Your task to perform on an android device: manage bookmarks in the chrome app Image 0: 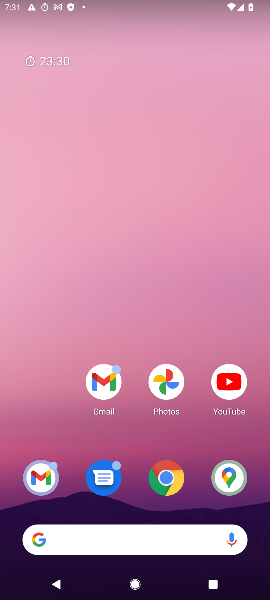
Step 0: click (178, 389)
Your task to perform on an android device: manage bookmarks in the chrome app Image 1: 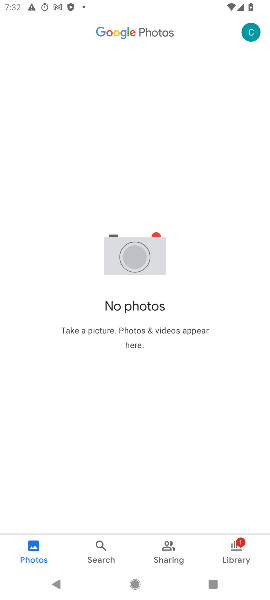
Step 1: drag from (108, 408) to (153, 259)
Your task to perform on an android device: manage bookmarks in the chrome app Image 2: 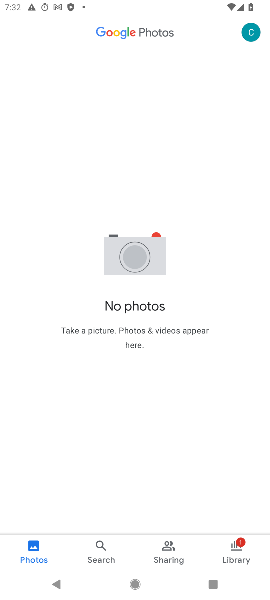
Step 2: press home button
Your task to perform on an android device: manage bookmarks in the chrome app Image 3: 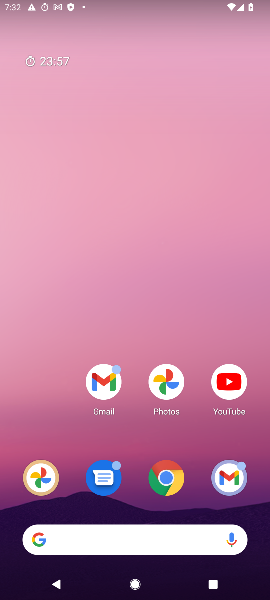
Step 3: click (164, 481)
Your task to perform on an android device: manage bookmarks in the chrome app Image 4: 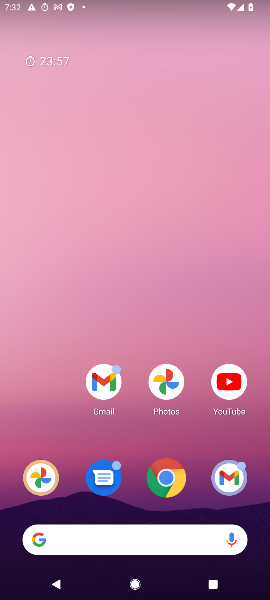
Step 4: click (164, 480)
Your task to perform on an android device: manage bookmarks in the chrome app Image 5: 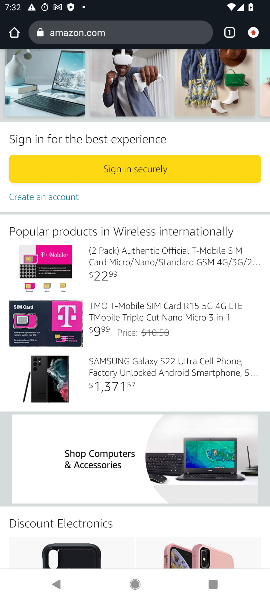
Step 5: click (261, 28)
Your task to perform on an android device: manage bookmarks in the chrome app Image 6: 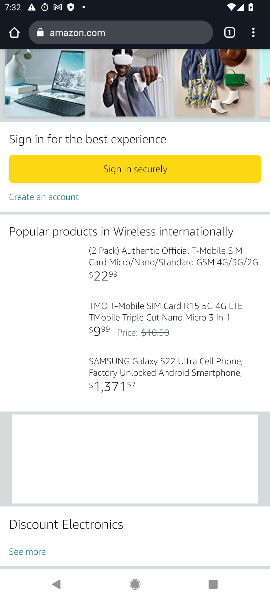
Step 6: drag from (257, 30) to (162, 224)
Your task to perform on an android device: manage bookmarks in the chrome app Image 7: 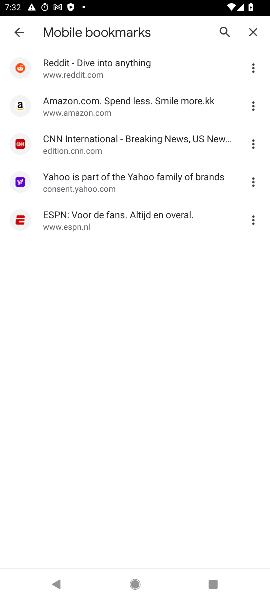
Step 7: drag from (95, 446) to (197, 181)
Your task to perform on an android device: manage bookmarks in the chrome app Image 8: 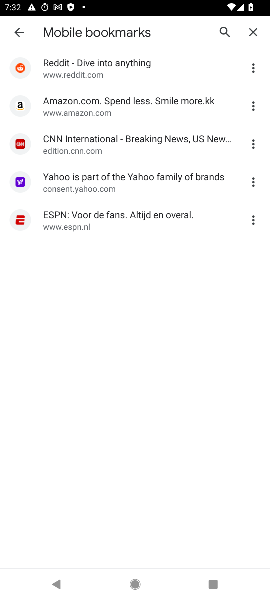
Step 8: click (256, 146)
Your task to perform on an android device: manage bookmarks in the chrome app Image 9: 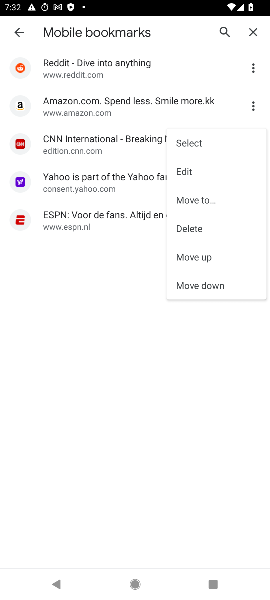
Step 9: click (190, 228)
Your task to perform on an android device: manage bookmarks in the chrome app Image 10: 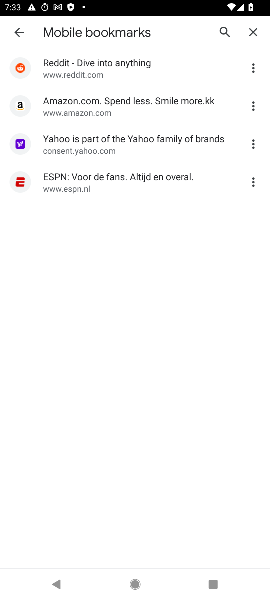
Step 10: task complete